Your task to perform on an android device: check storage Image 0: 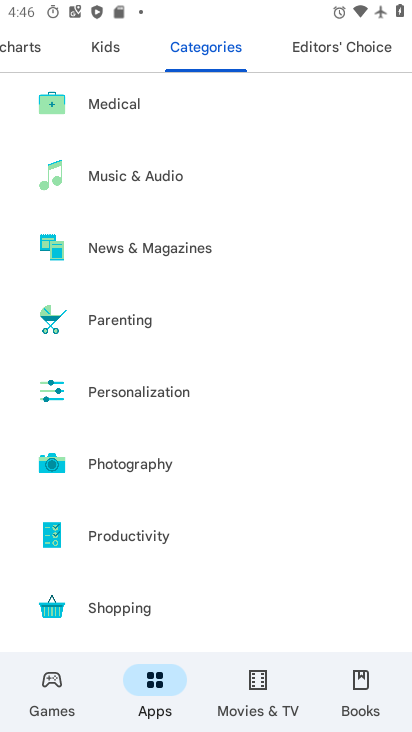
Step 0: press back button
Your task to perform on an android device: check storage Image 1: 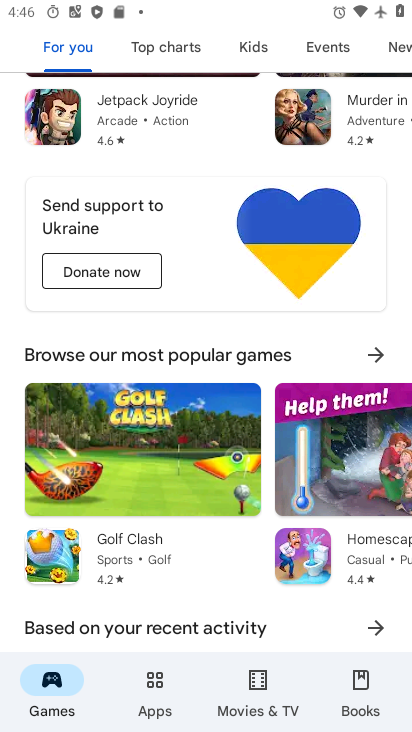
Step 1: press back button
Your task to perform on an android device: check storage Image 2: 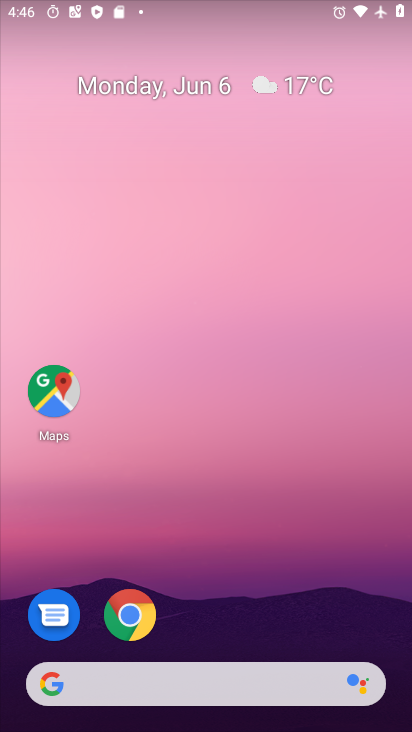
Step 2: drag from (238, 573) to (229, 23)
Your task to perform on an android device: check storage Image 3: 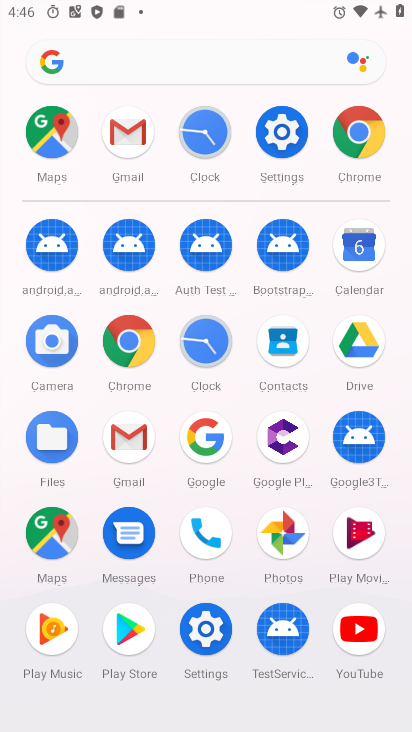
Step 3: drag from (9, 595) to (22, 307)
Your task to perform on an android device: check storage Image 4: 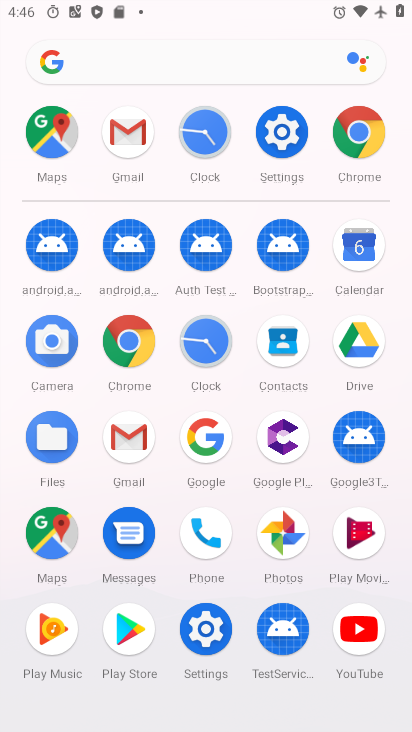
Step 4: click (206, 622)
Your task to perform on an android device: check storage Image 5: 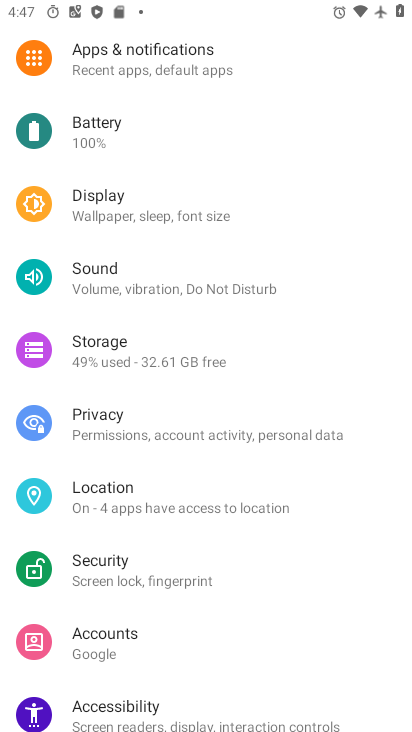
Step 5: click (133, 341)
Your task to perform on an android device: check storage Image 6: 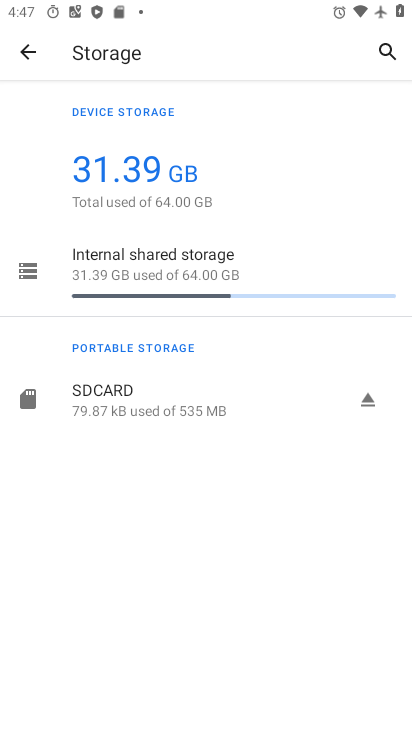
Step 6: task complete